Your task to perform on an android device: change keyboard looks Image 0: 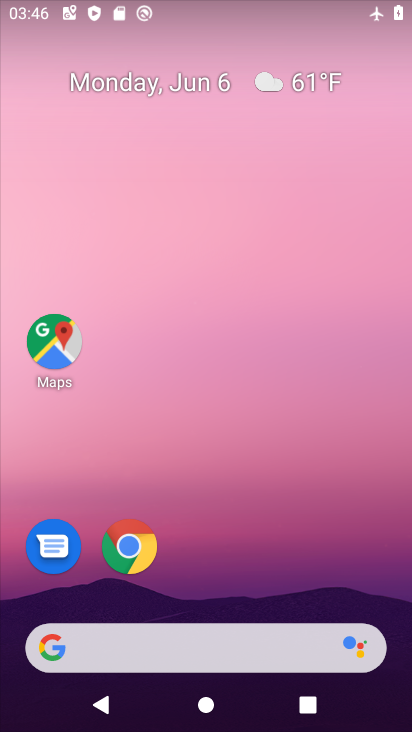
Step 0: drag from (244, 568) to (198, 5)
Your task to perform on an android device: change keyboard looks Image 1: 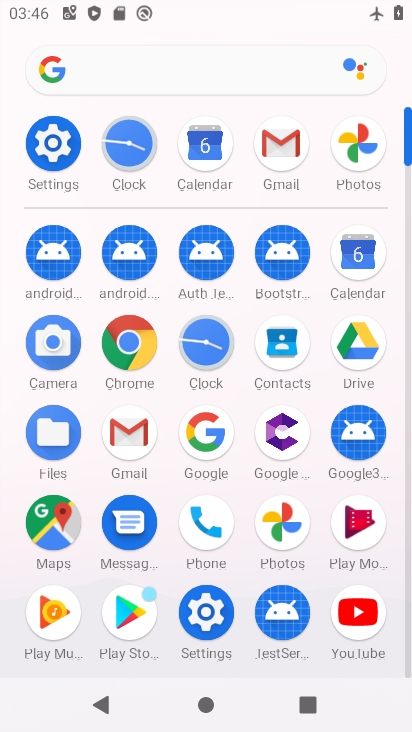
Step 1: click (40, 146)
Your task to perform on an android device: change keyboard looks Image 2: 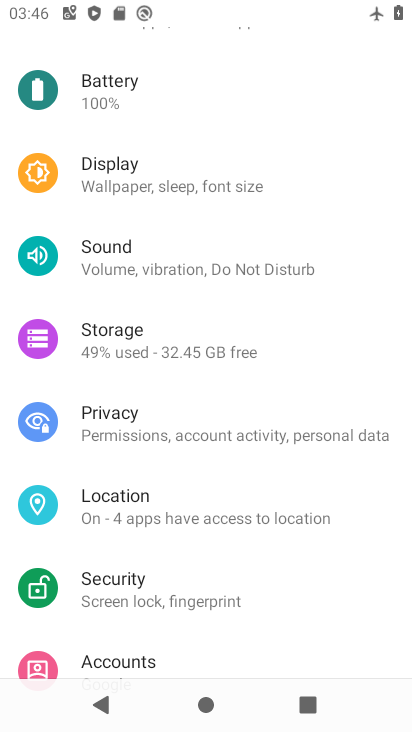
Step 2: drag from (296, 567) to (261, 105)
Your task to perform on an android device: change keyboard looks Image 3: 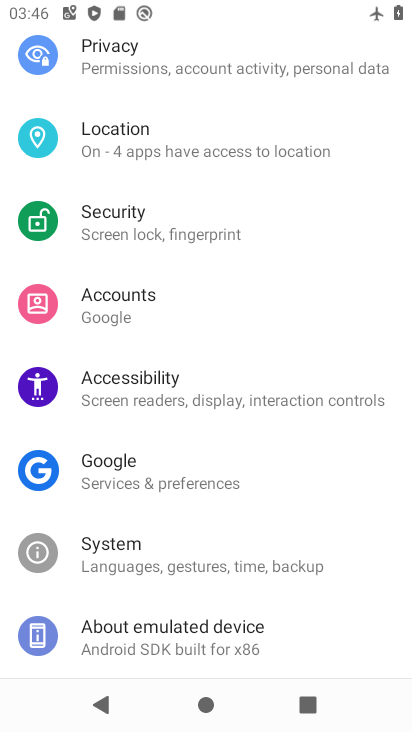
Step 3: click (158, 564)
Your task to perform on an android device: change keyboard looks Image 4: 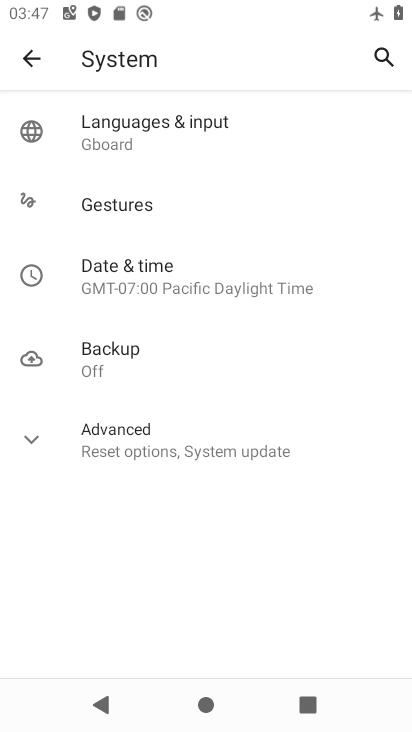
Step 4: click (106, 144)
Your task to perform on an android device: change keyboard looks Image 5: 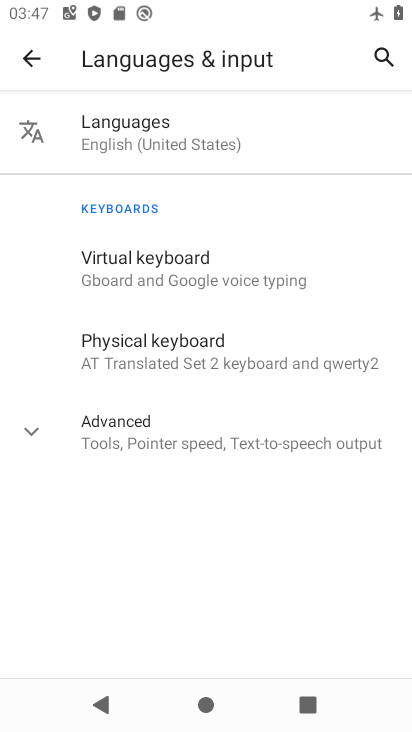
Step 5: click (149, 268)
Your task to perform on an android device: change keyboard looks Image 6: 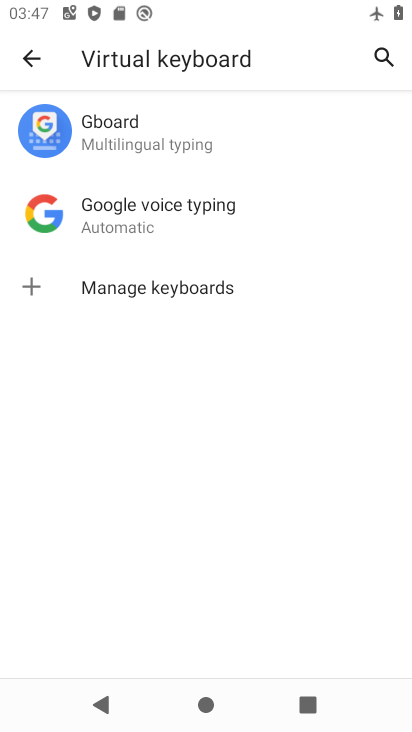
Step 6: click (106, 137)
Your task to perform on an android device: change keyboard looks Image 7: 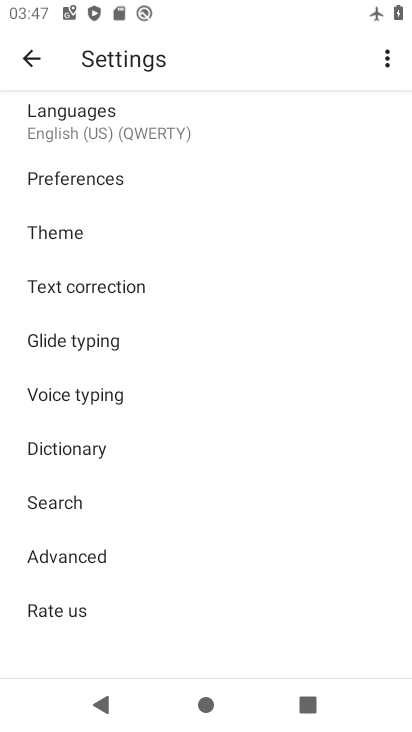
Step 7: click (57, 237)
Your task to perform on an android device: change keyboard looks Image 8: 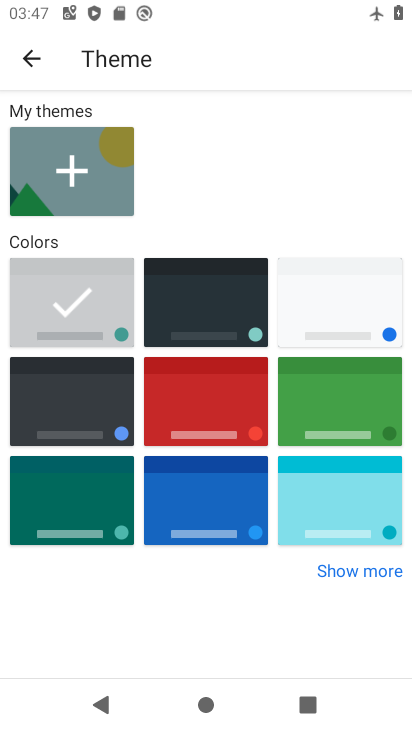
Step 8: click (184, 327)
Your task to perform on an android device: change keyboard looks Image 9: 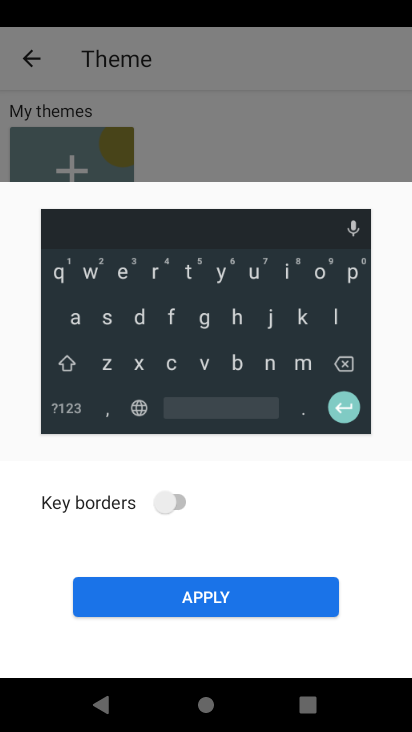
Step 9: click (131, 595)
Your task to perform on an android device: change keyboard looks Image 10: 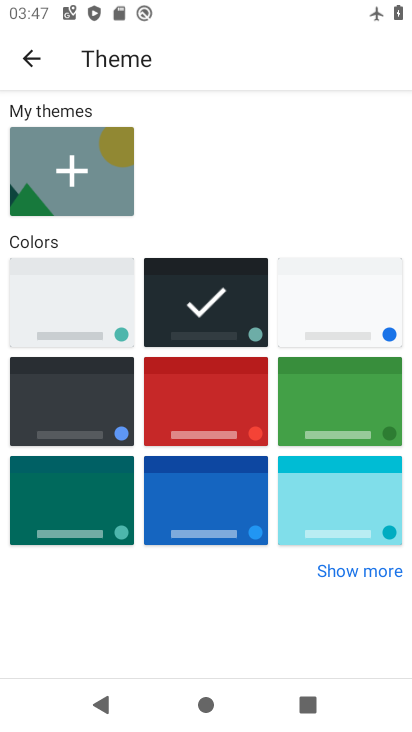
Step 10: task complete